Your task to perform on an android device: Open the phone app and click the voicemail tab. Image 0: 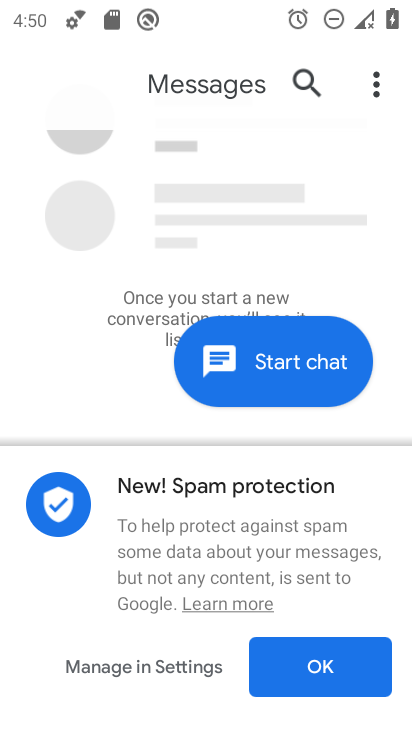
Step 0: press back button
Your task to perform on an android device: Open the phone app and click the voicemail tab. Image 1: 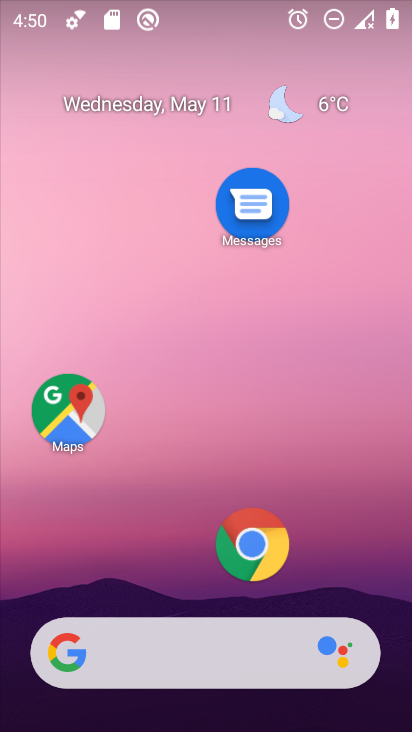
Step 1: press home button
Your task to perform on an android device: Open the phone app and click the voicemail tab. Image 2: 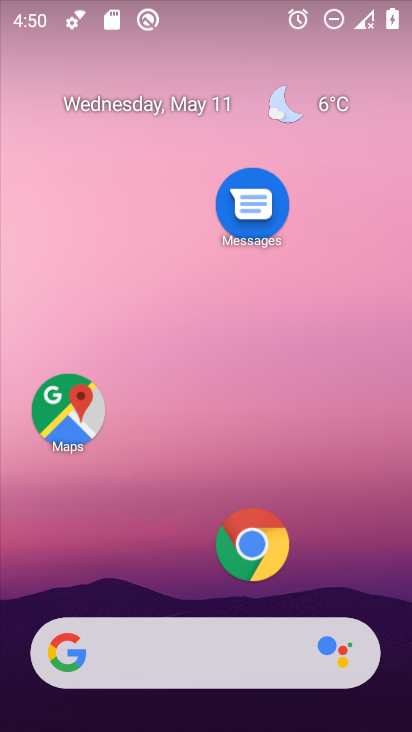
Step 2: drag from (215, 518) to (346, 40)
Your task to perform on an android device: Open the phone app and click the voicemail tab. Image 3: 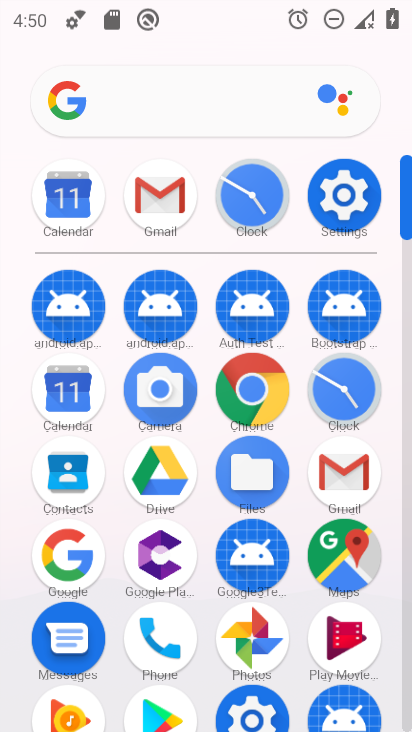
Step 3: drag from (271, 602) to (325, 354)
Your task to perform on an android device: Open the phone app and click the voicemail tab. Image 4: 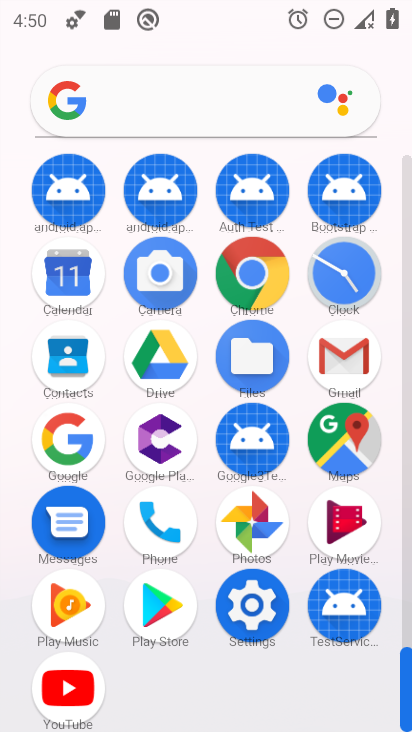
Step 4: click (162, 518)
Your task to perform on an android device: Open the phone app and click the voicemail tab. Image 5: 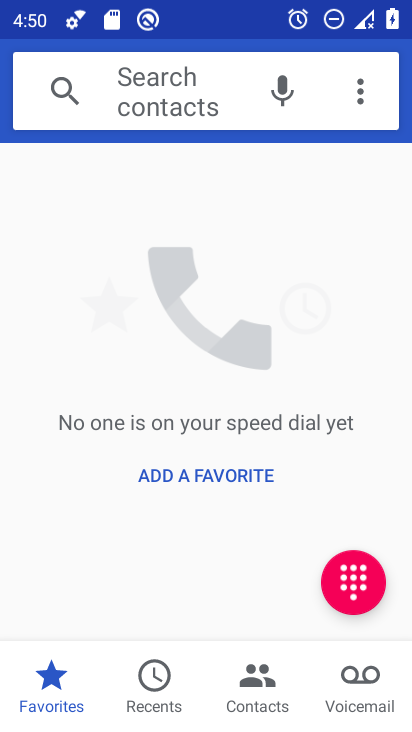
Step 5: click (364, 694)
Your task to perform on an android device: Open the phone app and click the voicemail tab. Image 6: 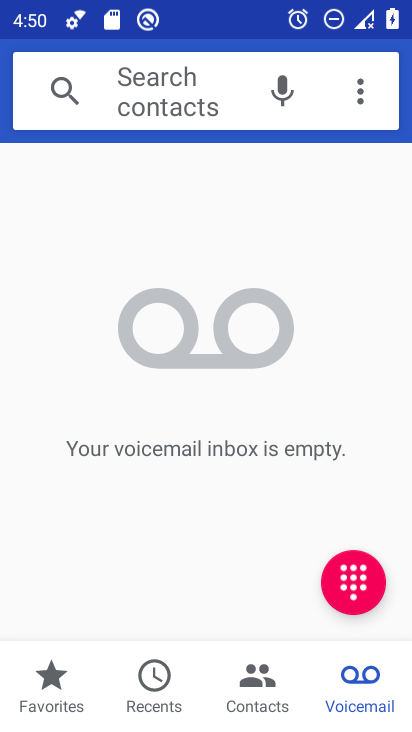
Step 6: task complete